Your task to perform on an android device: Open ESPN.com Image 0: 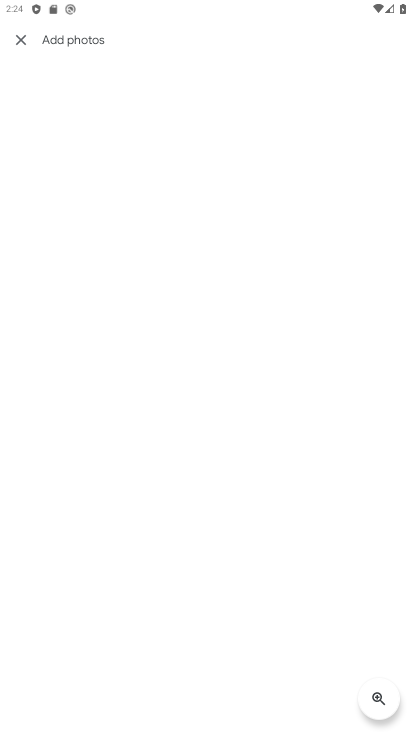
Step 0: press home button
Your task to perform on an android device: Open ESPN.com Image 1: 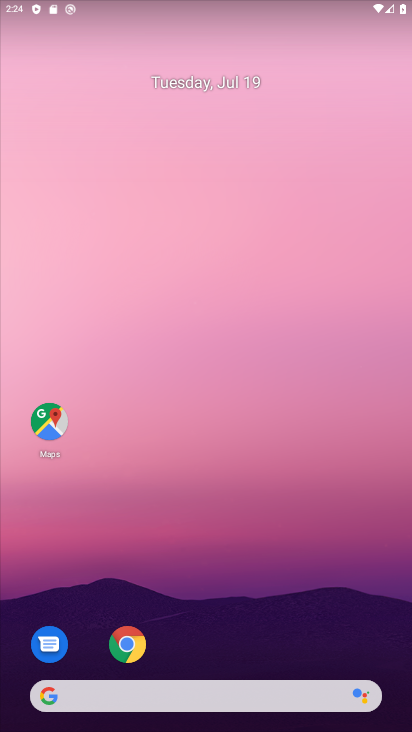
Step 1: click (124, 640)
Your task to perform on an android device: Open ESPN.com Image 2: 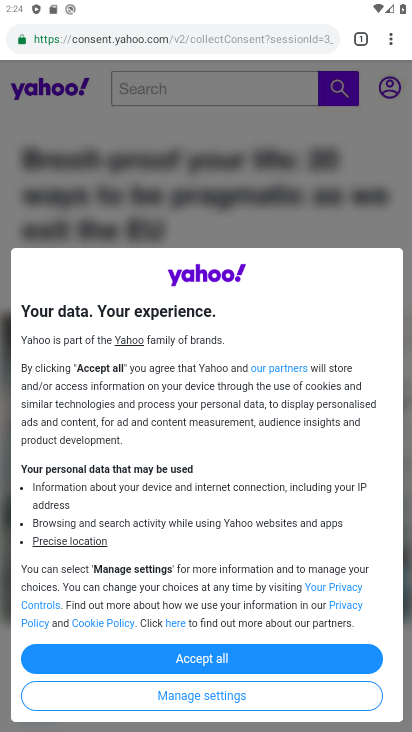
Step 2: click (229, 39)
Your task to perform on an android device: Open ESPN.com Image 3: 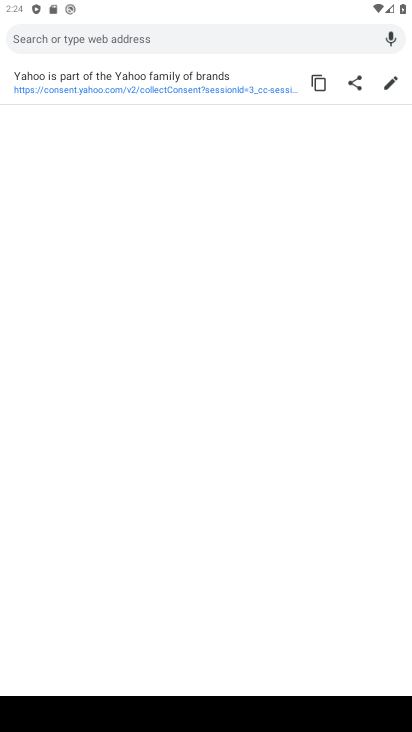
Step 3: type "ESPN.com"
Your task to perform on an android device: Open ESPN.com Image 4: 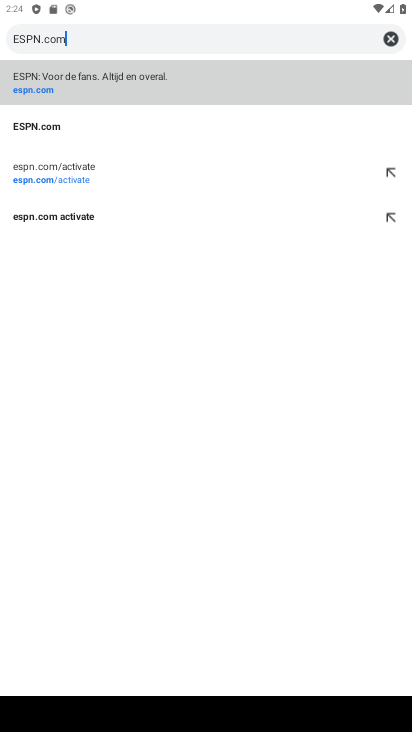
Step 4: click (257, 79)
Your task to perform on an android device: Open ESPN.com Image 5: 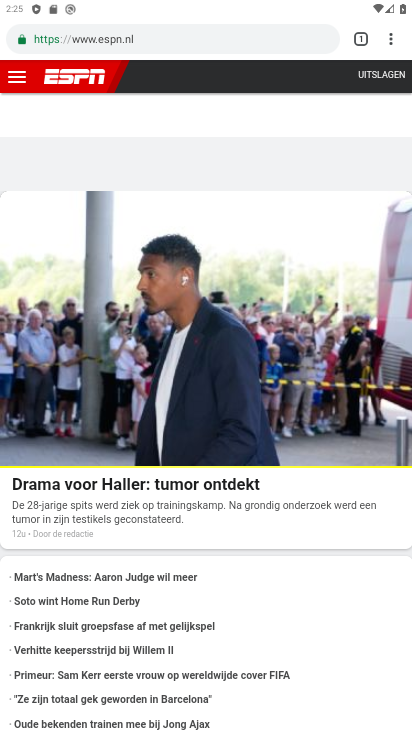
Step 5: task complete